Your task to perform on an android device: open sync settings in chrome Image 0: 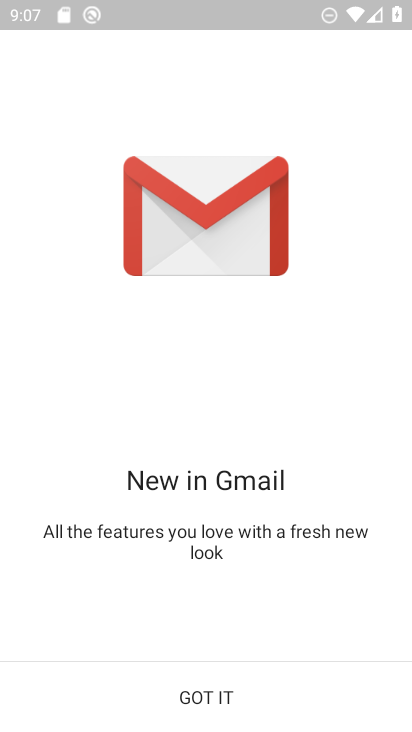
Step 0: press home button
Your task to perform on an android device: open sync settings in chrome Image 1: 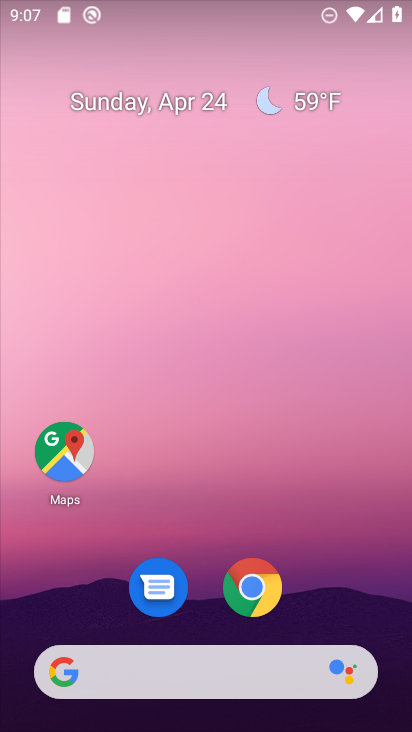
Step 1: click (249, 586)
Your task to perform on an android device: open sync settings in chrome Image 2: 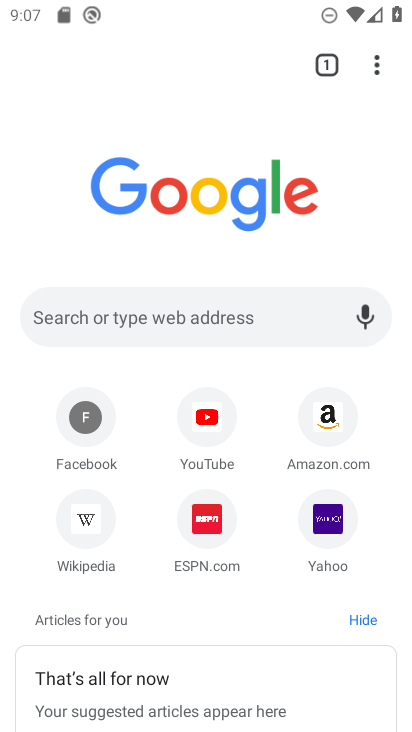
Step 2: click (376, 65)
Your task to perform on an android device: open sync settings in chrome Image 3: 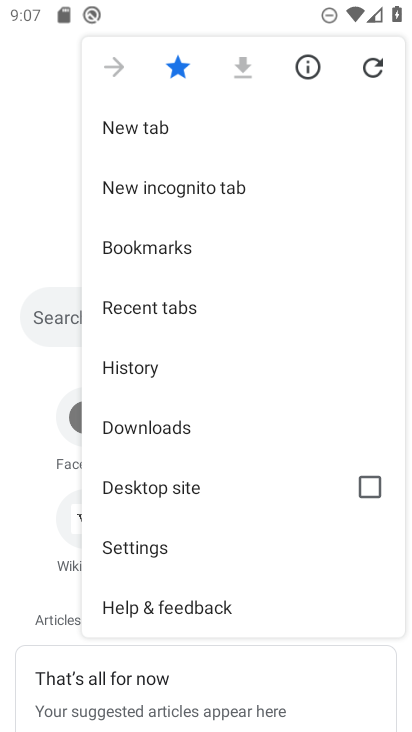
Step 3: click (152, 552)
Your task to perform on an android device: open sync settings in chrome Image 4: 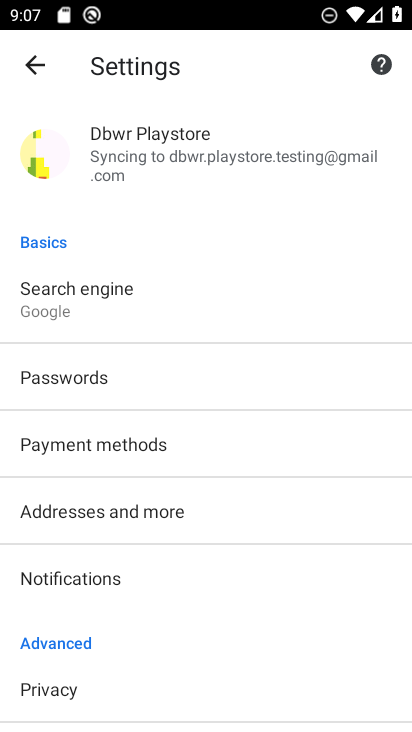
Step 4: drag from (128, 617) to (154, 524)
Your task to perform on an android device: open sync settings in chrome Image 5: 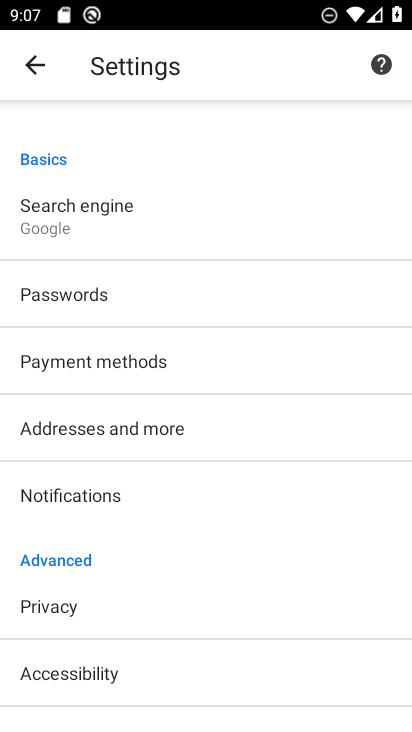
Step 5: drag from (146, 601) to (176, 504)
Your task to perform on an android device: open sync settings in chrome Image 6: 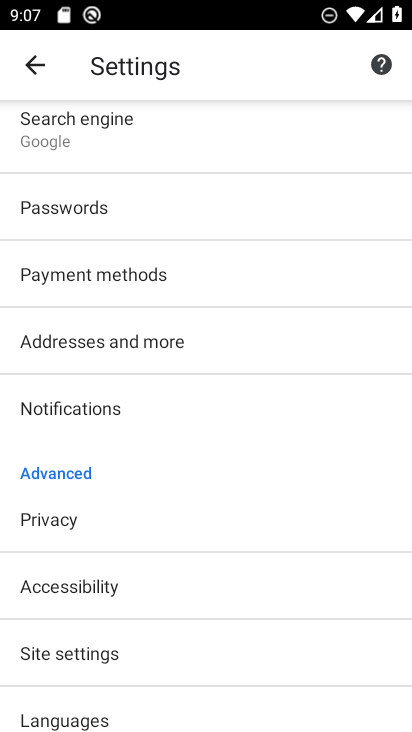
Step 6: click (118, 647)
Your task to perform on an android device: open sync settings in chrome Image 7: 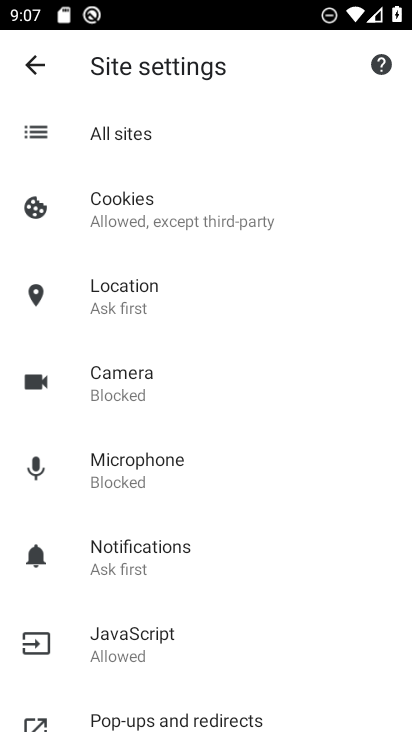
Step 7: drag from (212, 630) to (242, 511)
Your task to perform on an android device: open sync settings in chrome Image 8: 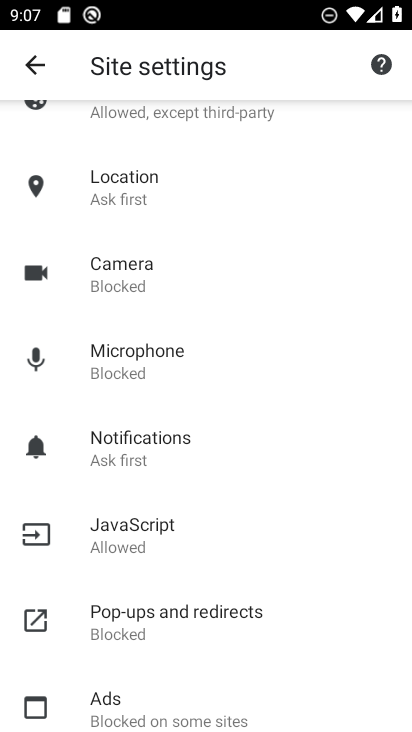
Step 8: drag from (210, 655) to (230, 539)
Your task to perform on an android device: open sync settings in chrome Image 9: 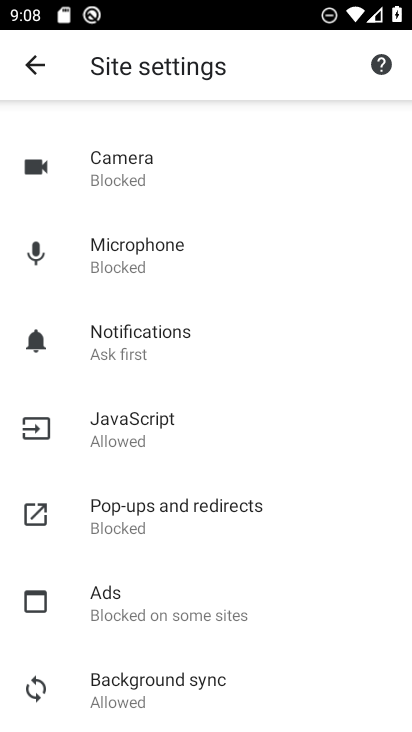
Step 9: drag from (209, 627) to (243, 540)
Your task to perform on an android device: open sync settings in chrome Image 10: 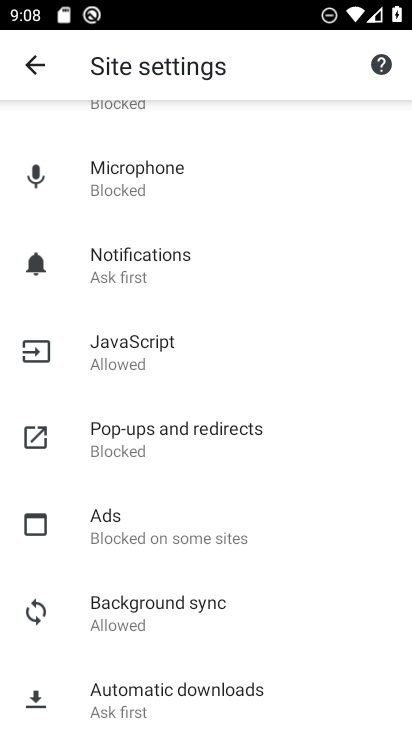
Step 10: click (183, 604)
Your task to perform on an android device: open sync settings in chrome Image 11: 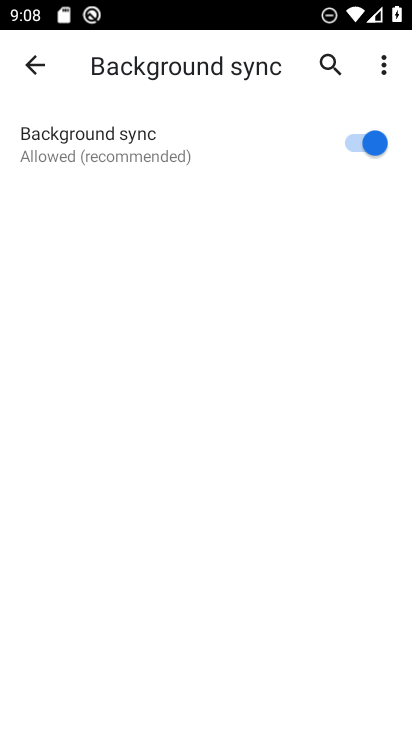
Step 11: task complete